Your task to perform on an android device: allow cookies in the chrome app Image 0: 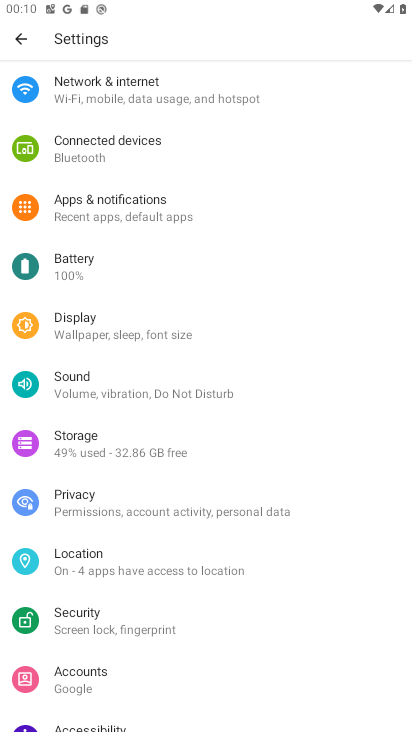
Step 0: press home button
Your task to perform on an android device: allow cookies in the chrome app Image 1: 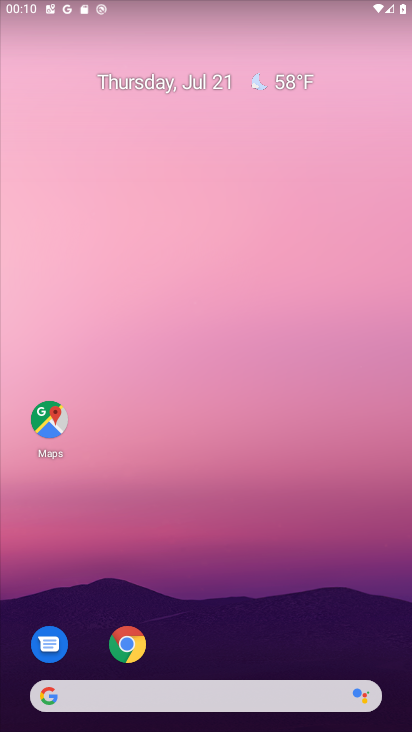
Step 1: click (137, 650)
Your task to perform on an android device: allow cookies in the chrome app Image 2: 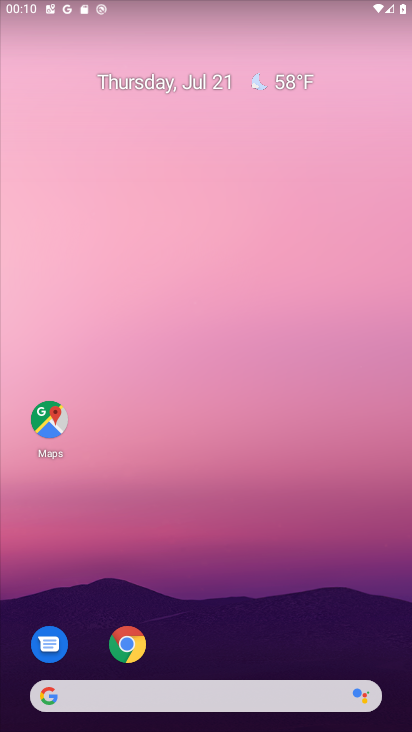
Step 2: click (137, 650)
Your task to perform on an android device: allow cookies in the chrome app Image 3: 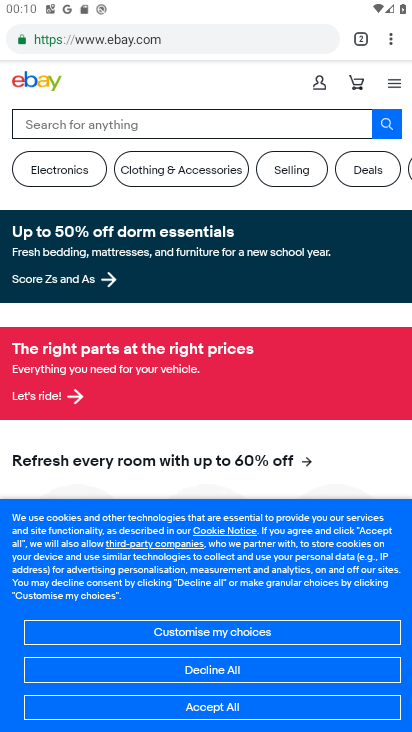
Step 3: click (393, 36)
Your task to perform on an android device: allow cookies in the chrome app Image 4: 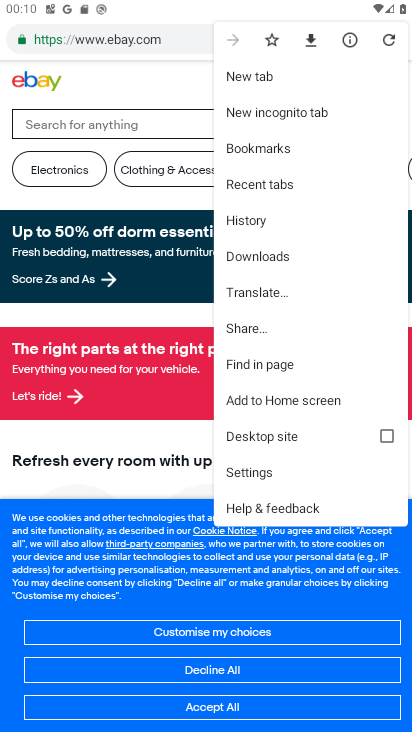
Step 4: click (276, 474)
Your task to perform on an android device: allow cookies in the chrome app Image 5: 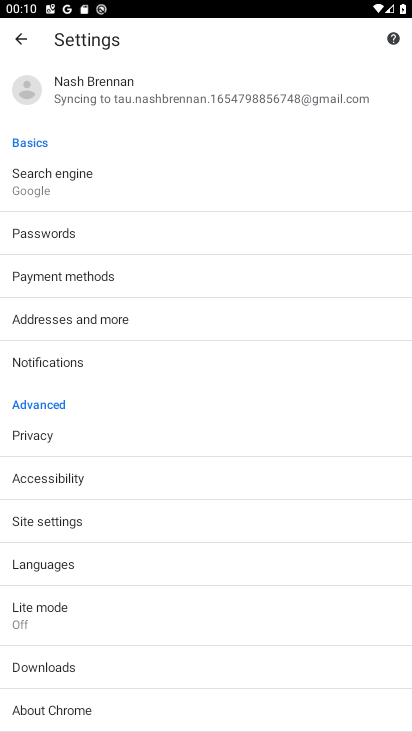
Step 5: click (98, 521)
Your task to perform on an android device: allow cookies in the chrome app Image 6: 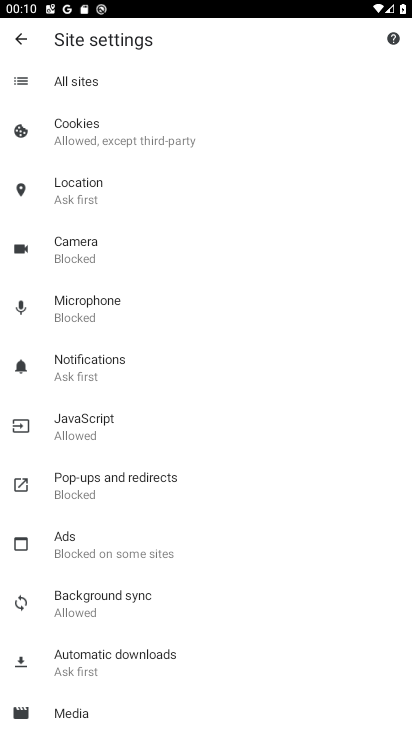
Step 6: click (113, 134)
Your task to perform on an android device: allow cookies in the chrome app Image 7: 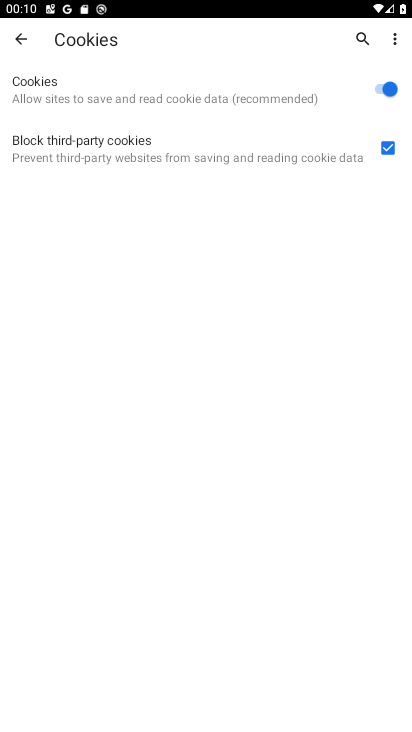
Step 7: task complete